Your task to perform on an android device: change keyboard looks Image 0: 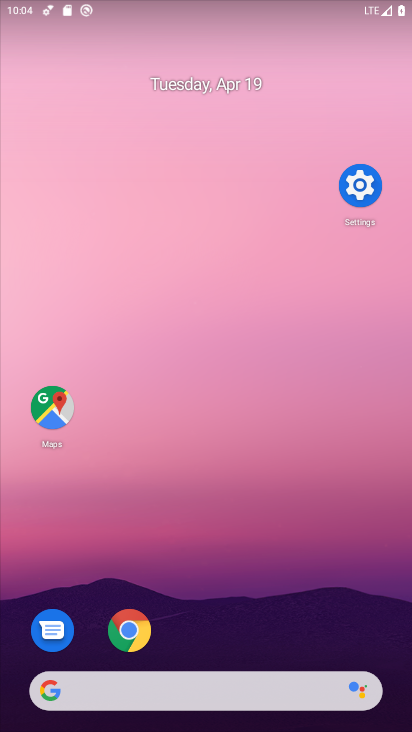
Step 0: click (230, 134)
Your task to perform on an android device: change keyboard looks Image 1: 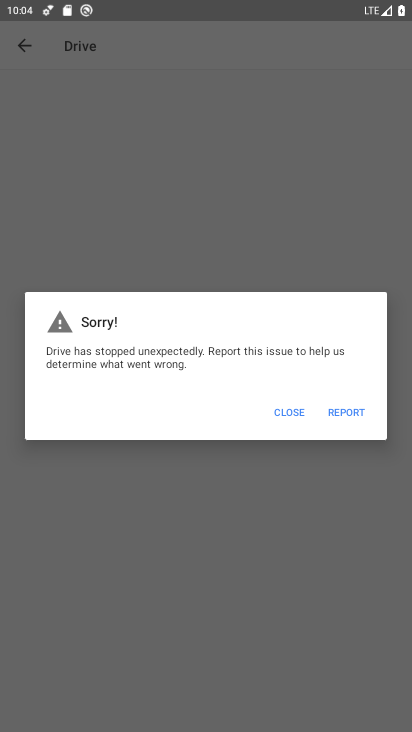
Step 1: press home button
Your task to perform on an android device: change keyboard looks Image 2: 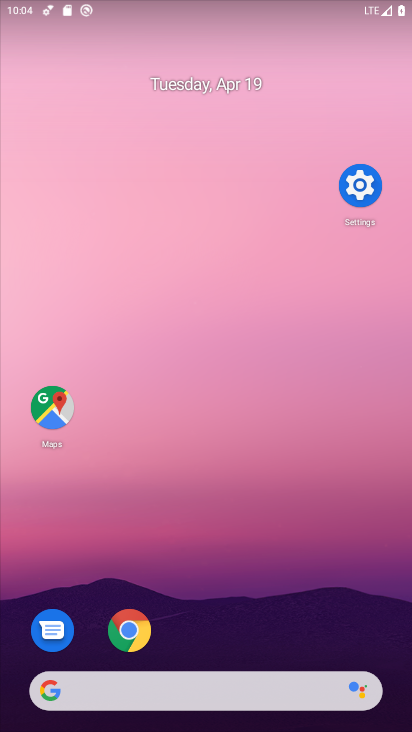
Step 2: drag from (213, 629) to (268, 125)
Your task to perform on an android device: change keyboard looks Image 3: 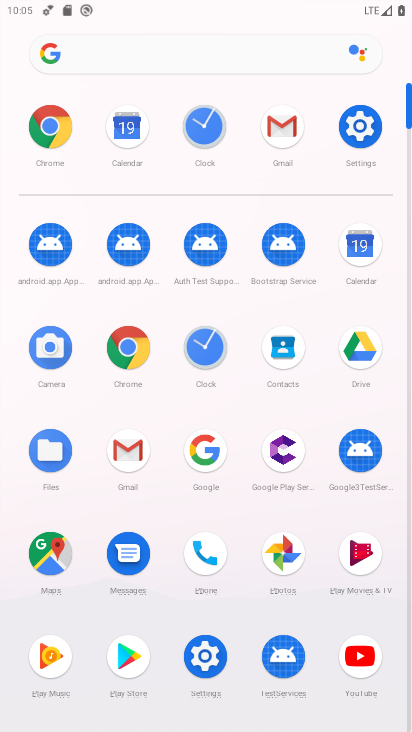
Step 3: drag from (197, 571) to (272, 338)
Your task to perform on an android device: change keyboard looks Image 4: 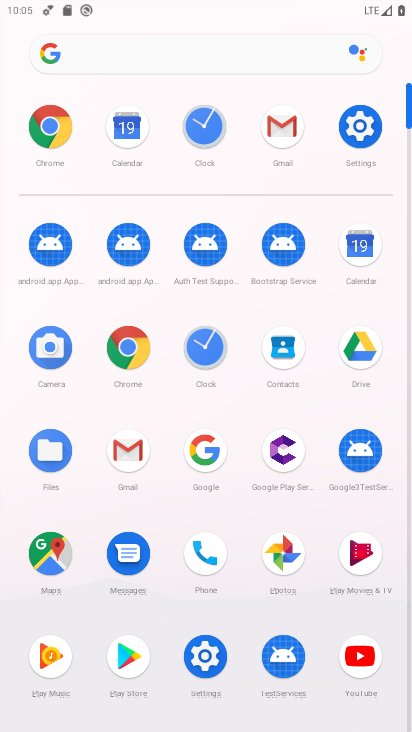
Step 4: click (356, 115)
Your task to perform on an android device: change keyboard looks Image 5: 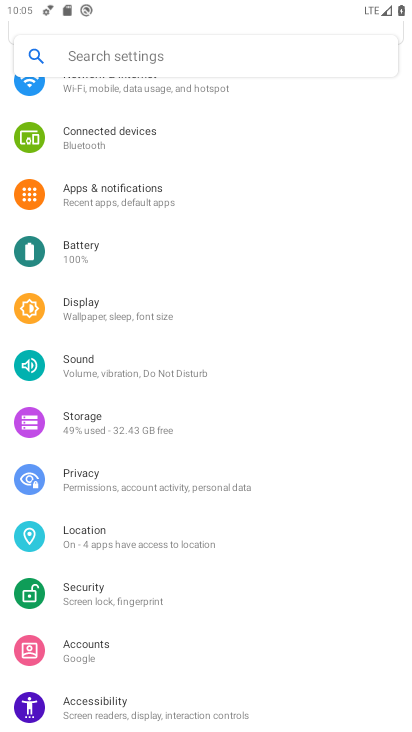
Step 5: drag from (183, 586) to (313, 205)
Your task to perform on an android device: change keyboard looks Image 6: 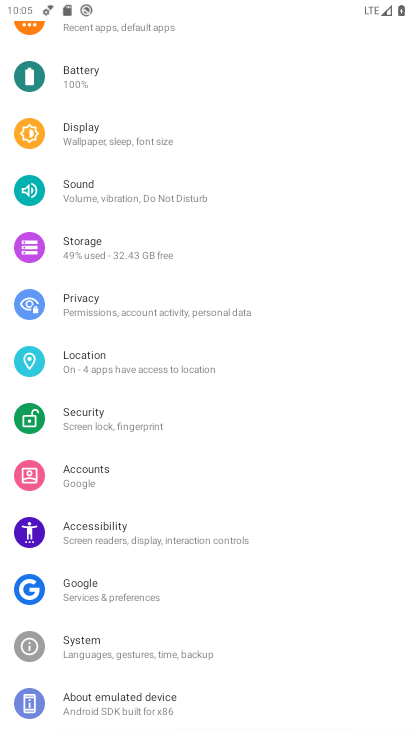
Step 6: drag from (327, 207) to (246, 639)
Your task to perform on an android device: change keyboard looks Image 7: 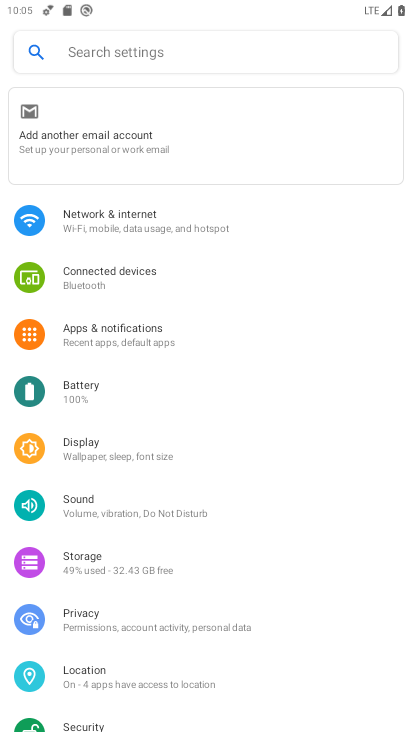
Step 7: drag from (270, 548) to (343, 0)
Your task to perform on an android device: change keyboard looks Image 8: 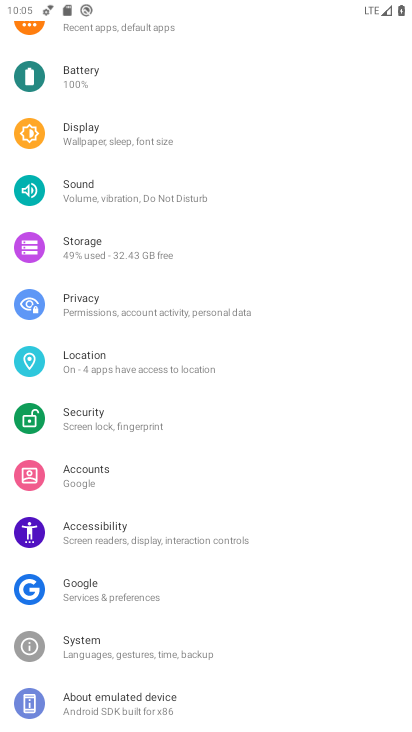
Step 8: click (97, 678)
Your task to perform on an android device: change keyboard looks Image 9: 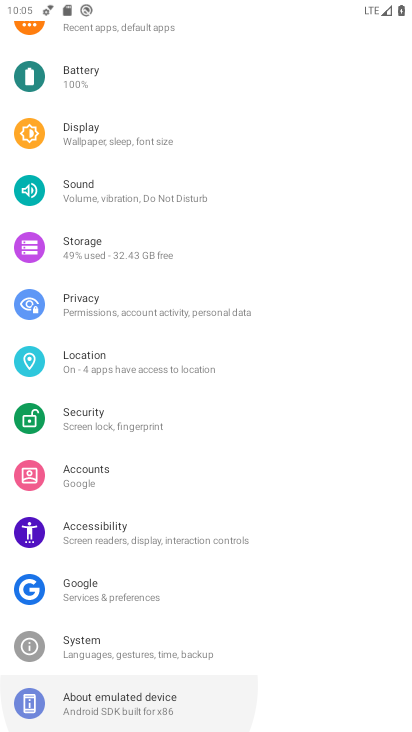
Step 9: click (101, 655)
Your task to perform on an android device: change keyboard looks Image 10: 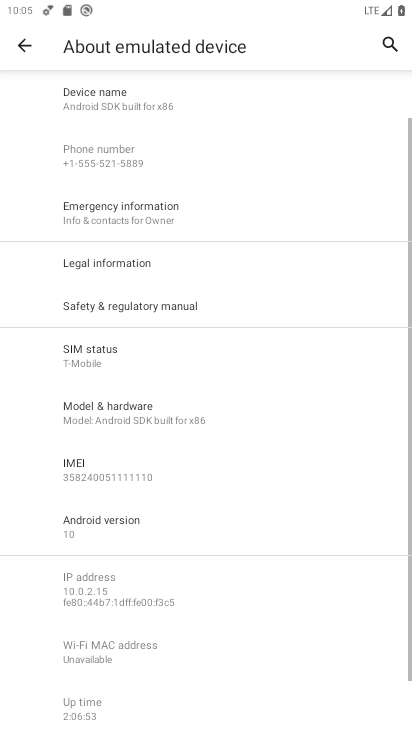
Step 10: drag from (263, 553) to (308, 280)
Your task to perform on an android device: change keyboard looks Image 11: 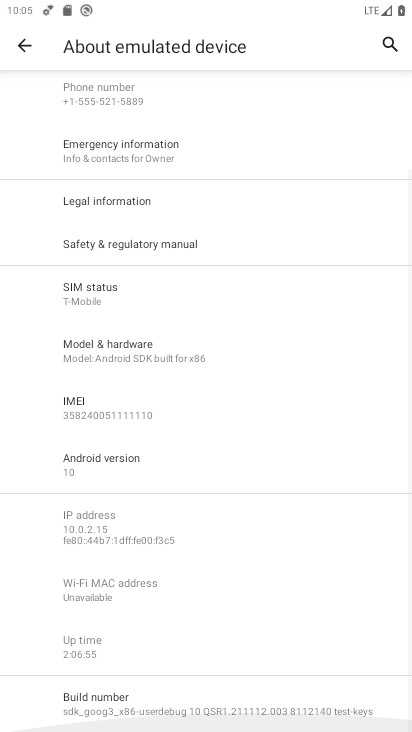
Step 11: drag from (252, 614) to (287, 301)
Your task to perform on an android device: change keyboard looks Image 12: 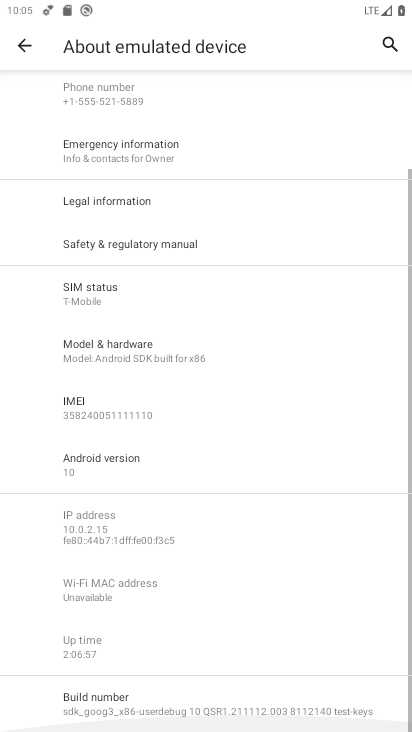
Step 12: drag from (282, 287) to (211, 639)
Your task to perform on an android device: change keyboard looks Image 13: 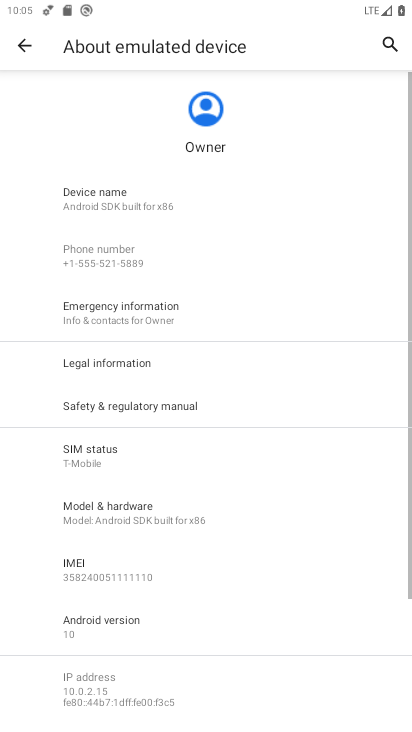
Step 13: drag from (237, 269) to (198, 554)
Your task to perform on an android device: change keyboard looks Image 14: 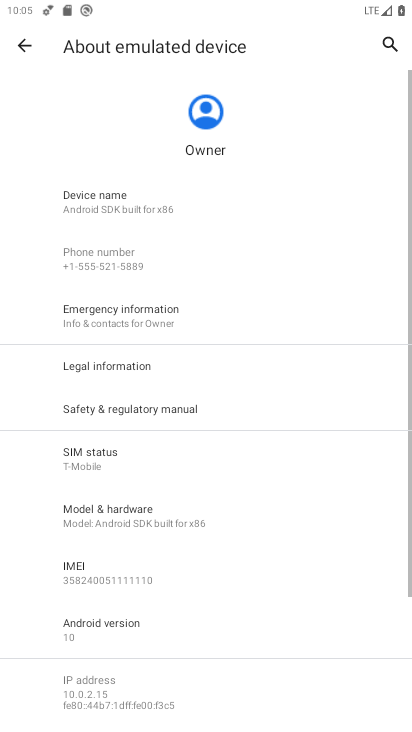
Step 14: click (189, 415)
Your task to perform on an android device: change keyboard looks Image 15: 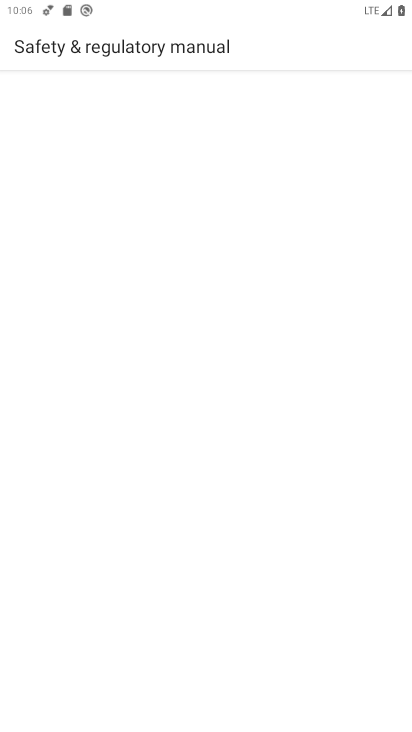
Step 15: click (78, 49)
Your task to perform on an android device: change keyboard looks Image 16: 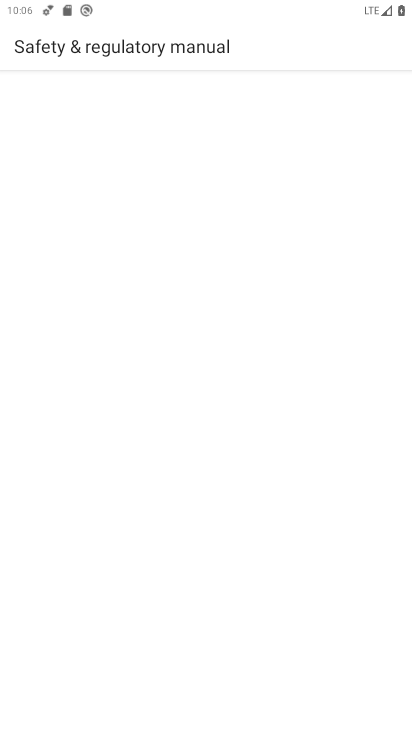
Step 16: drag from (22, 52) to (124, 355)
Your task to perform on an android device: change keyboard looks Image 17: 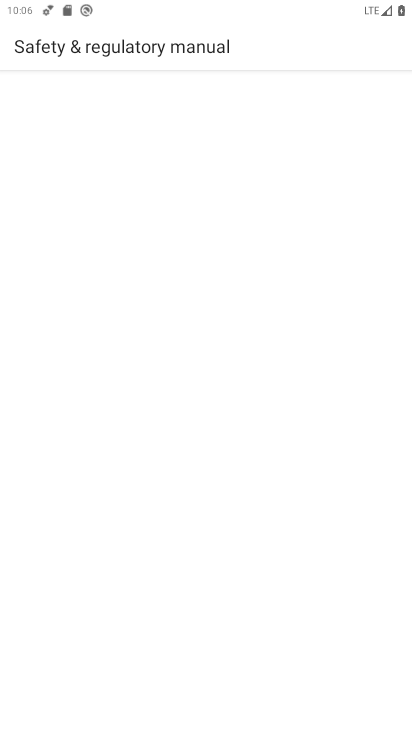
Step 17: click (165, 585)
Your task to perform on an android device: change keyboard looks Image 18: 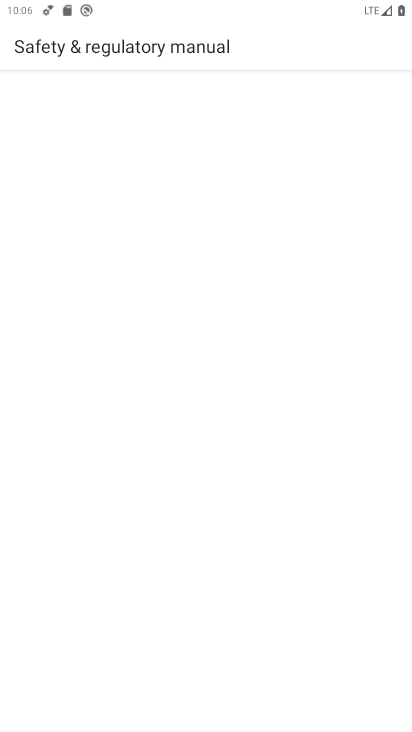
Step 18: task complete